Your task to perform on an android device: turn off priority inbox in the gmail app Image 0: 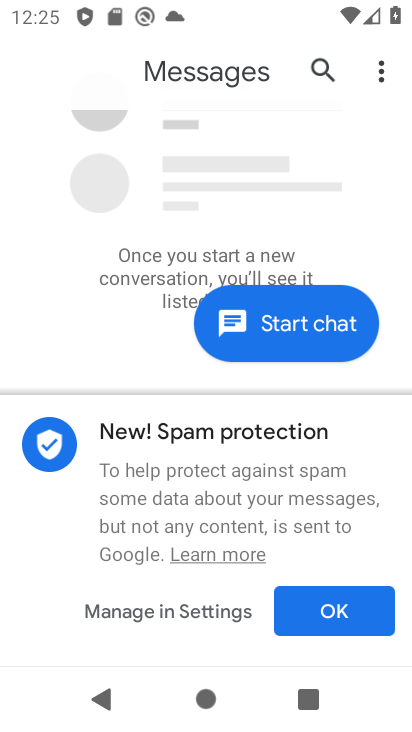
Step 0: press home button
Your task to perform on an android device: turn off priority inbox in the gmail app Image 1: 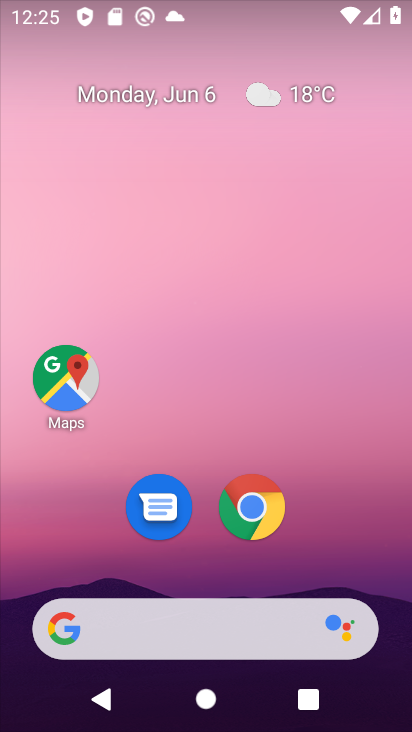
Step 1: drag from (207, 519) to (305, 83)
Your task to perform on an android device: turn off priority inbox in the gmail app Image 2: 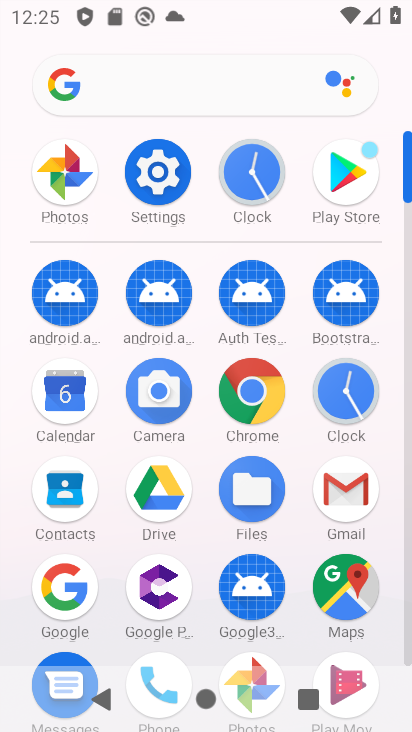
Step 2: click (359, 493)
Your task to perform on an android device: turn off priority inbox in the gmail app Image 3: 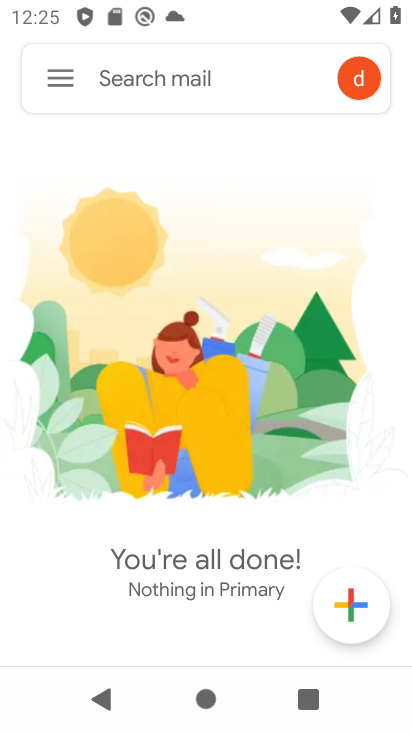
Step 3: click (69, 83)
Your task to perform on an android device: turn off priority inbox in the gmail app Image 4: 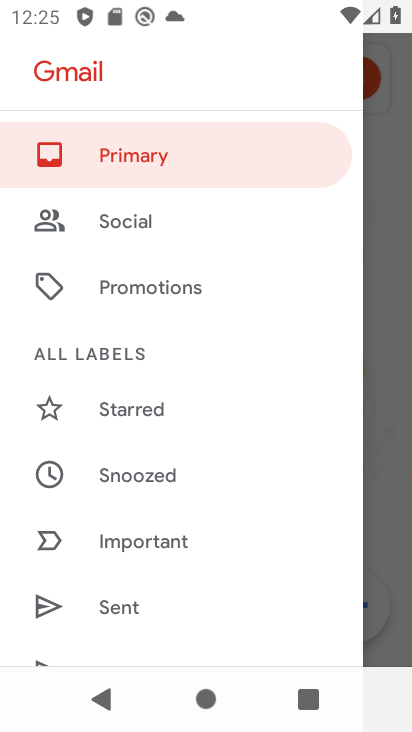
Step 4: drag from (119, 562) to (202, 188)
Your task to perform on an android device: turn off priority inbox in the gmail app Image 5: 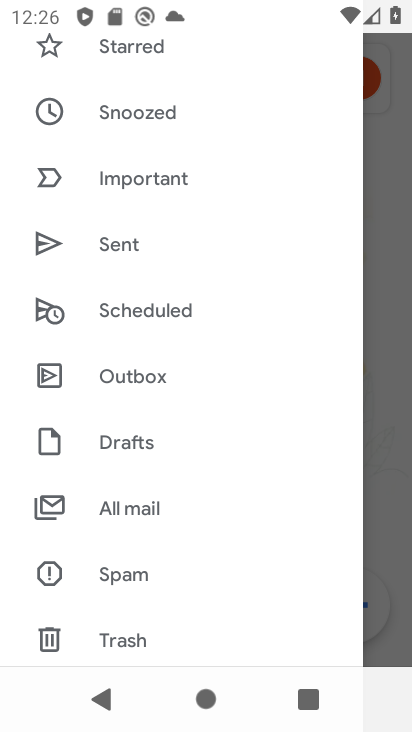
Step 5: drag from (175, 629) to (191, 330)
Your task to perform on an android device: turn off priority inbox in the gmail app Image 6: 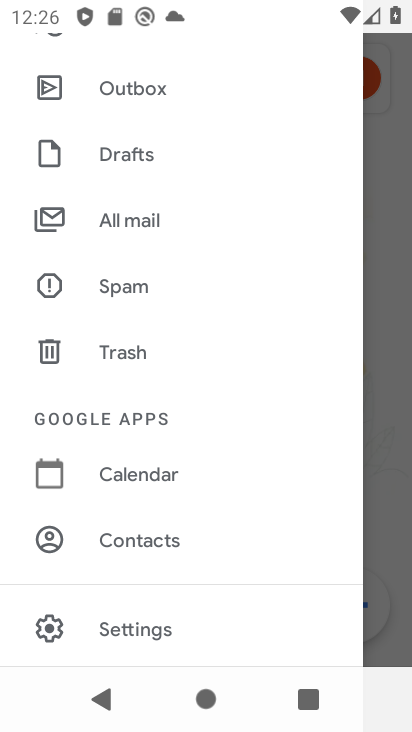
Step 6: drag from (138, 661) to (165, 432)
Your task to perform on an android device: turn off priority inbox in the gmail app Image 7: 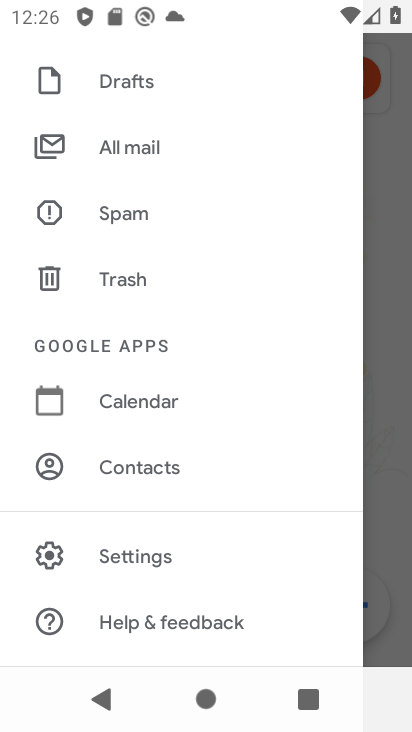
Step 7: click (118, 559)
Your task to perform on an android device: turn off priority inbox in the gmail app Image 8: 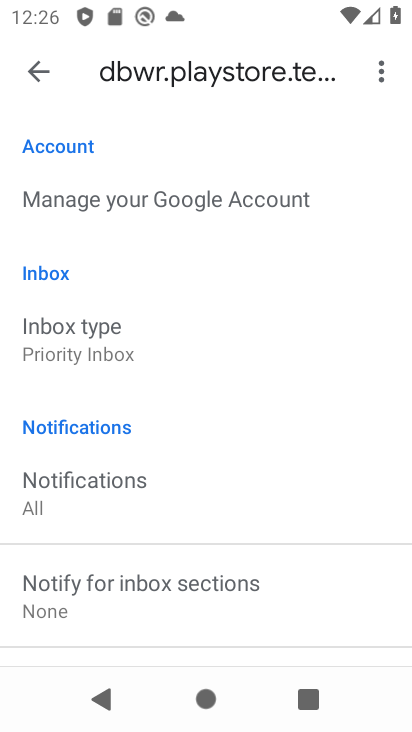
Step 8: click (72, 353)
Your task to perform on an android device: turn off priority inbox in the gmail app Image 9: 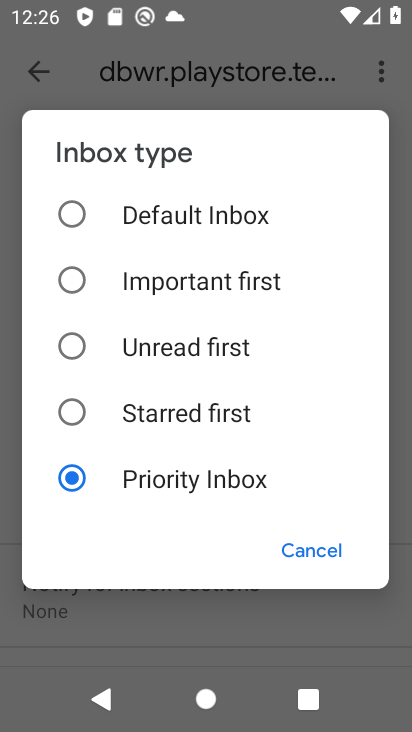
Step 9: click (73, 211)
Your task to perform on an android device: turn off priority inbox in the gmail app Image 10: 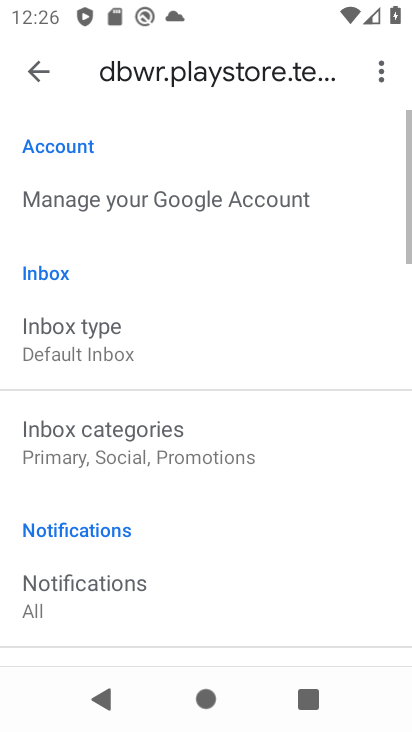
Step 10: click (86, 215)
Your task to perform on an android device: turn off priority inbox in the gmail app Image 11: 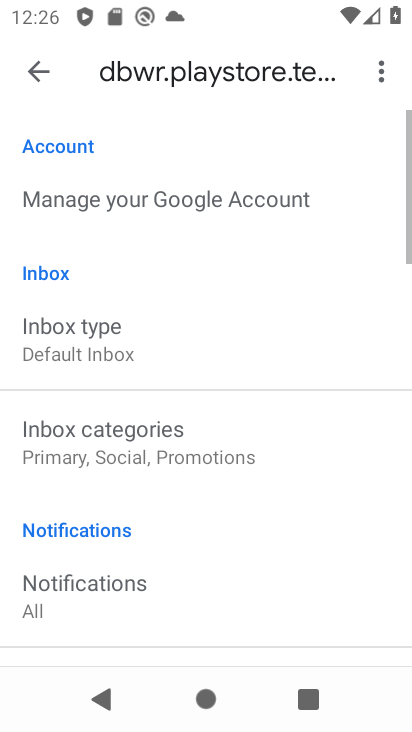
Step 11: click (173, 211)
Your task to perform on an android device: turn off priority inbox in the gmail app Image 12: 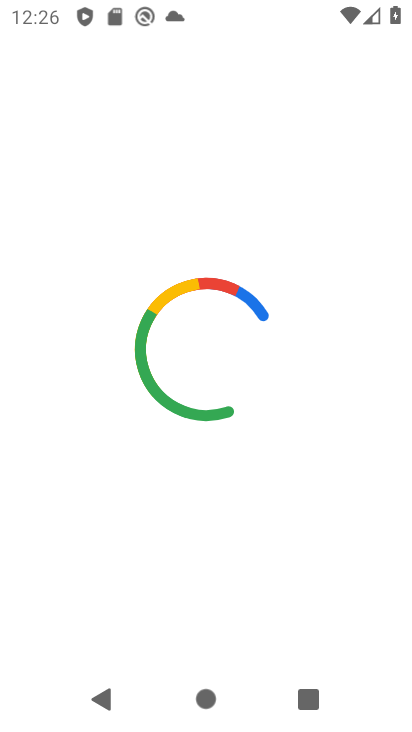
Step 12: task complete